Your task to perform on an android device: Go to accessibility settings Image 0: 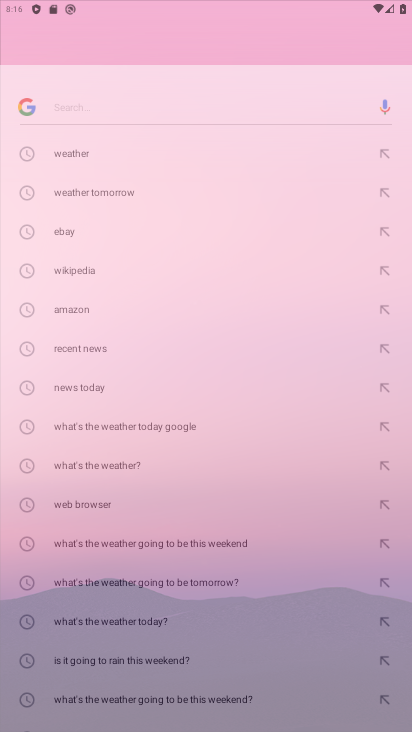
Step 0: drag from (229, 678) to (247, 82)
Your task to perform on an android device: Go to accessibility settings Image 1: 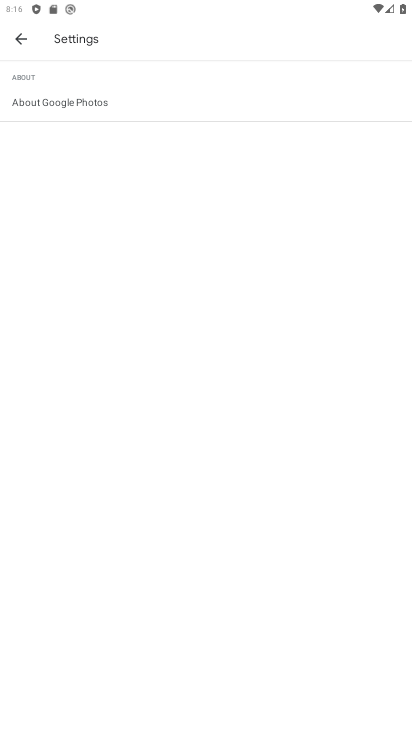
Step 1: press home button
Your task to perform on an android device: Go to accessibility settings Image 2: 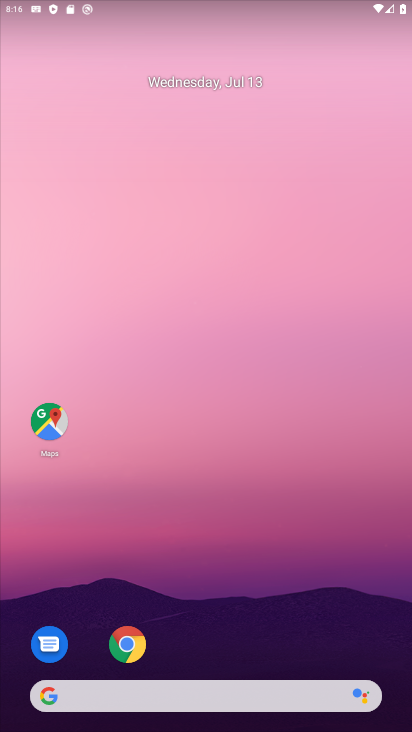
Step 2: drag from (217, 728) to (242, 78)
Your task to perform on an android device: Go to accessibility settings Image 3: 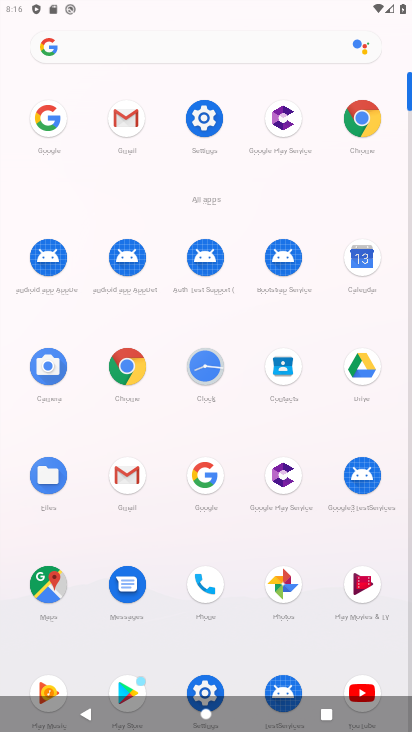
Step 3: click (200, 122)
Your task to perform on an android device: Go to accessibility settings Image 4: 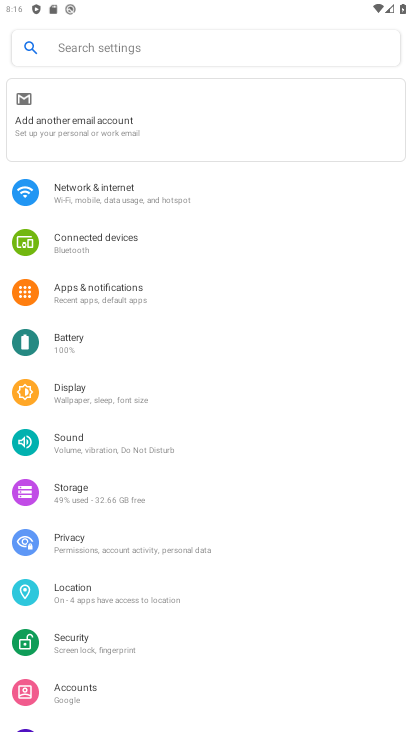
Step 4: drag from (113, 688) to (130, 307)
Your task to perform on an android device: Go to accessibility settings Image 5: 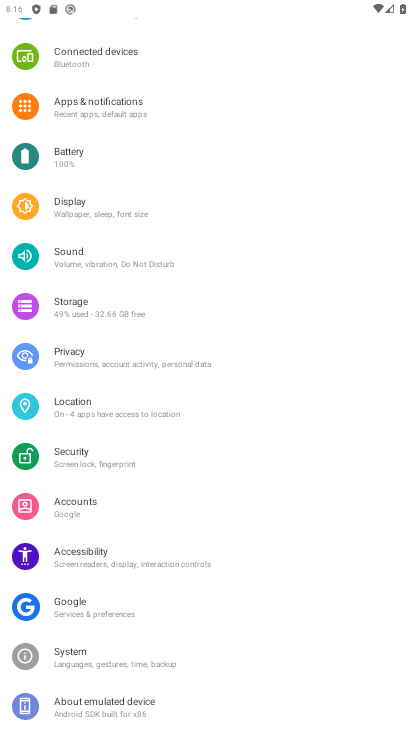
Step 5: click (60, 558)
Your task to perform on an android device: Go to accessibility settings Image 6: 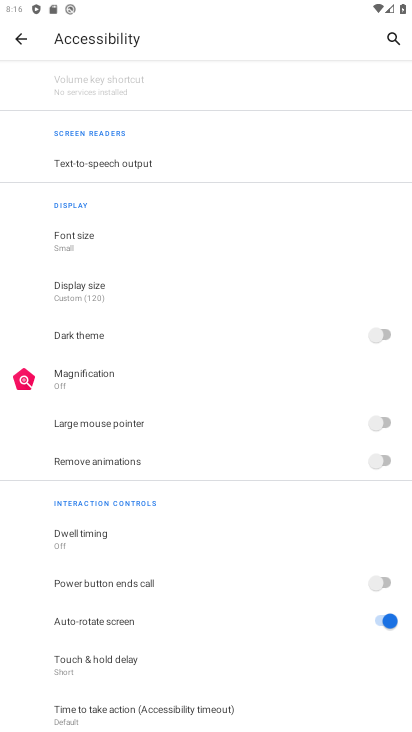
Step 6: task complete